Your task to perform on an android device: Open eBay Image 0: 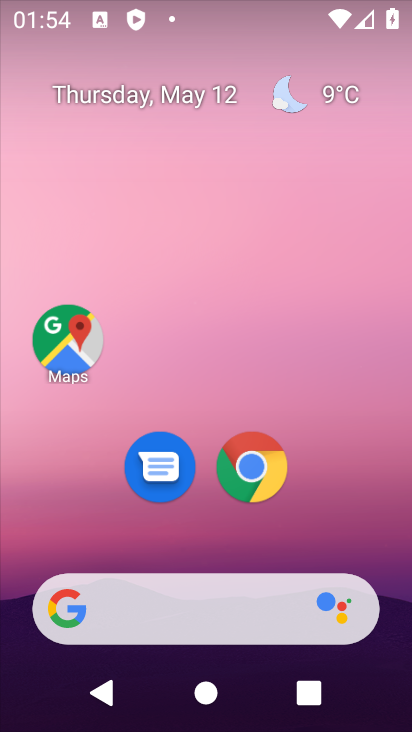
Step 0: drag from (333, 525) to (310, 205)
Your task to perform on an android device: Open eBay Image 1: 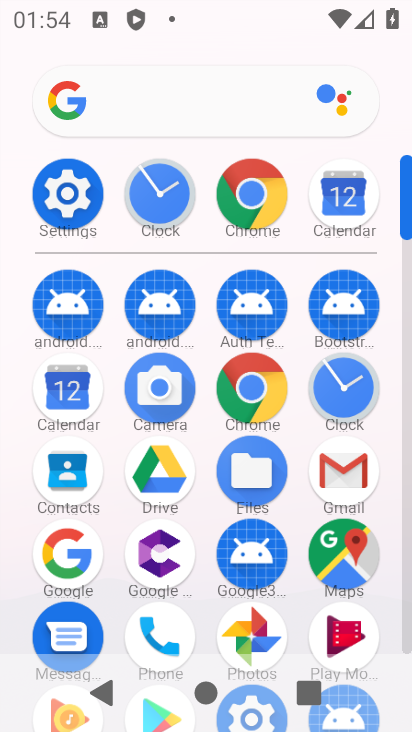
Step 1: click (230, 179)
Your task to perform on an android device: Open eBay Image 2: 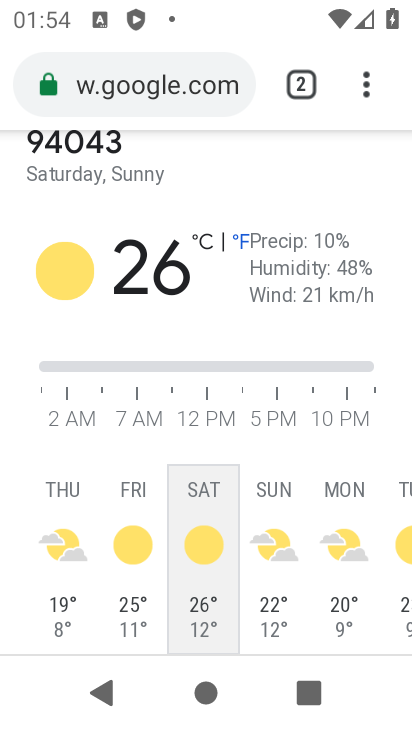
Step 2: click (344, 79)
Your task to perform on an android device: Open eBay Image 3: 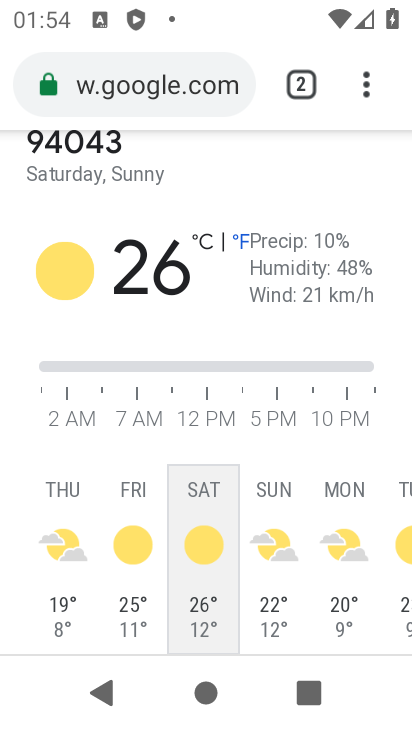
Step 3: click (339, 79)
Your task to perform on an android device: Open eBay Image 4: 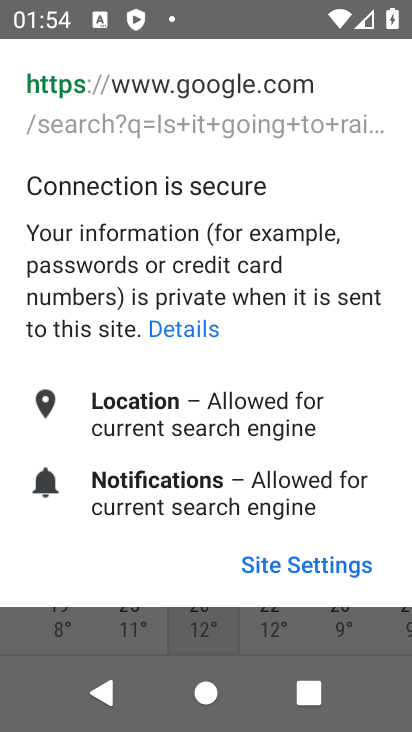
Step 4: press back button
Your task to perform on an android device: Open eBay Image 5: 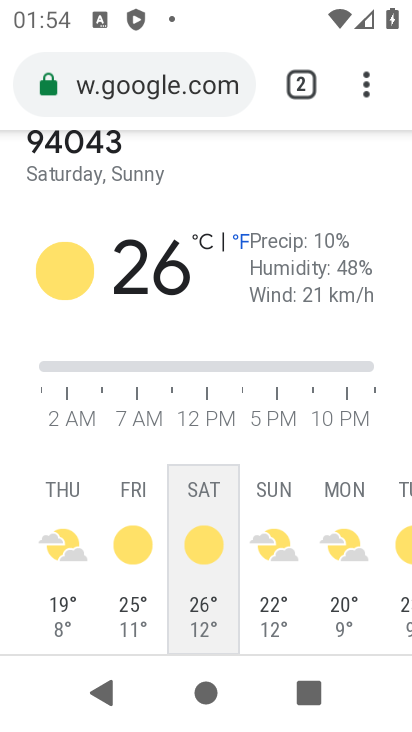
Step 5: click (381, 86)
Your task to perform on an android device: Open eBay Image 6: 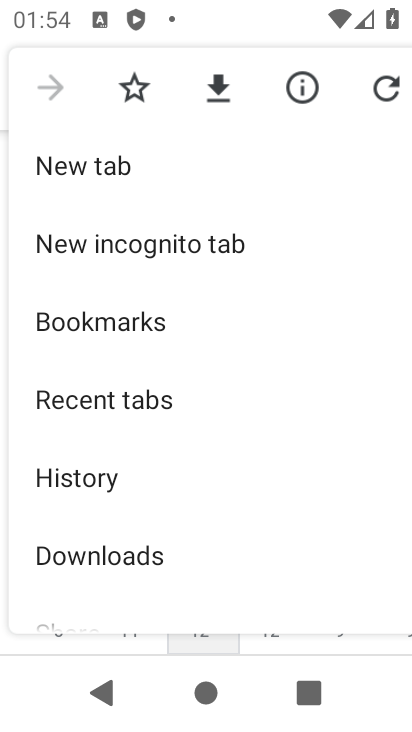
Step 6: click (95, 166)
Your task to perform on an android device: Open eBay Image 7: 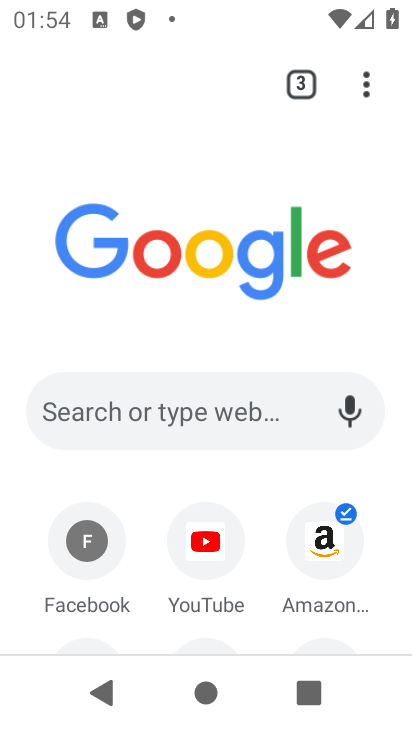
Step 7: drag from (293, 527) to (335, 236)
Your task to perform on an android device: Open eBay Image 8: 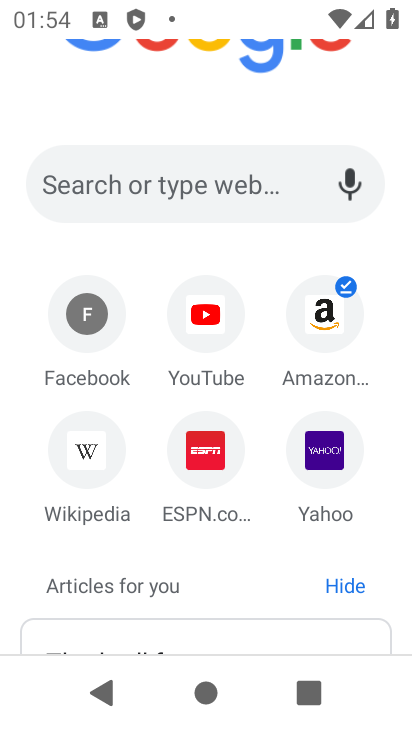
Step 8: click (111, 204)
Your task to perform on an android device: Open eBay Image 9: 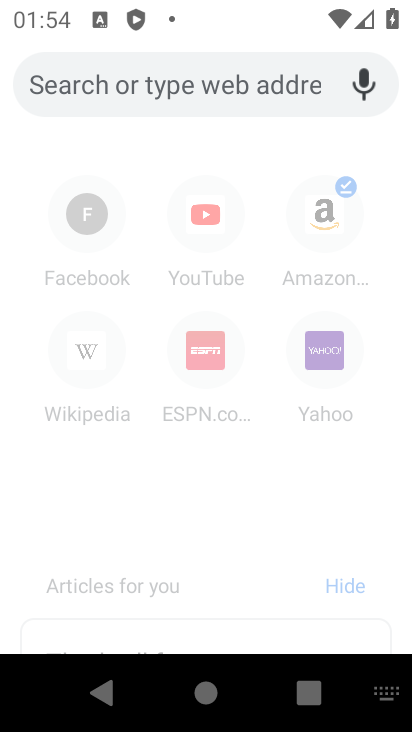
Step 9: type "eBay"
Your task to perform on an android device: Open eBay Image 10: 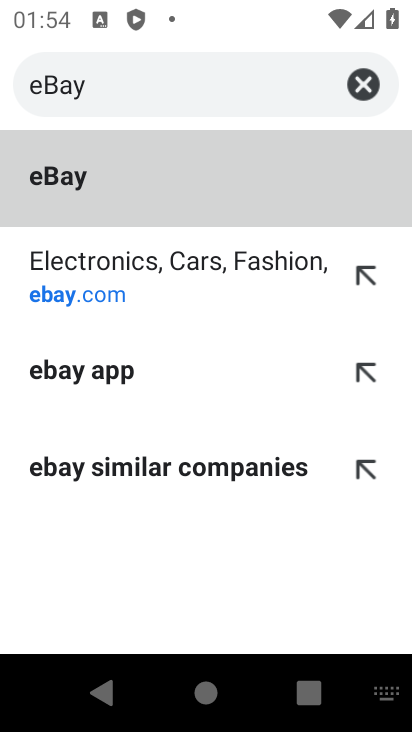
Step 10: click (118, 153)
Your task to perform on an android device: Open eBay Image 11: 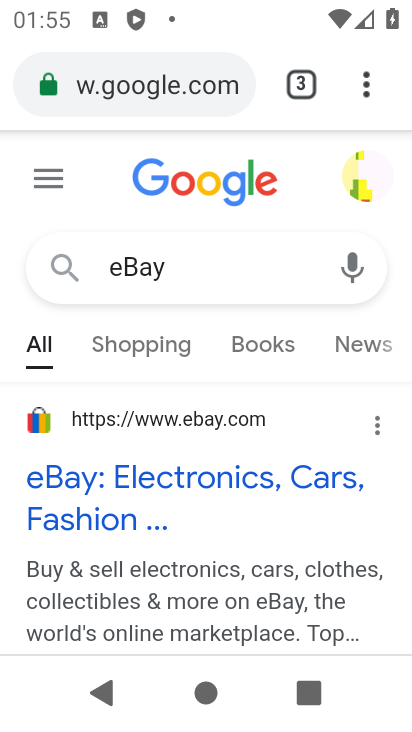
Step 11: task complete